Your task to perform on an android device: Open Youtube and go to the subscriptions tab Image 0: 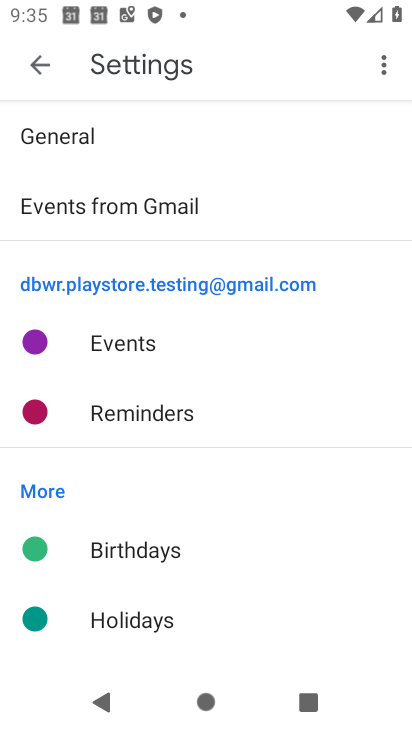
Step 0: press home button
Your task to perform on an android device: Open Youtube and go to the subscriptions tab Image 1: 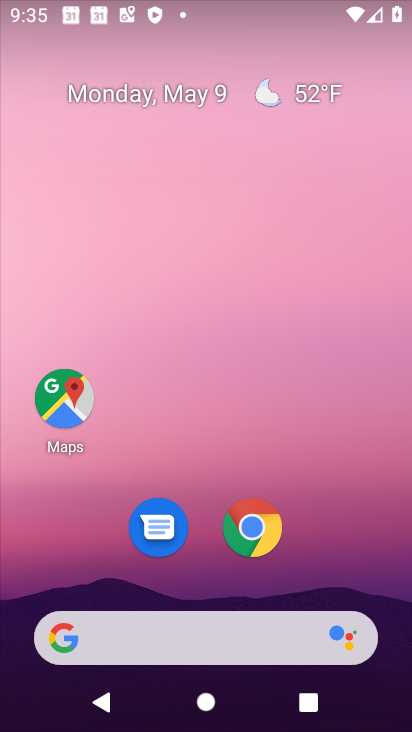
Step 1: drag from (190, 582) to (189, 86)
Your task to perform on an android device: Open Youtube and go to the subscriptions tab Image 2: 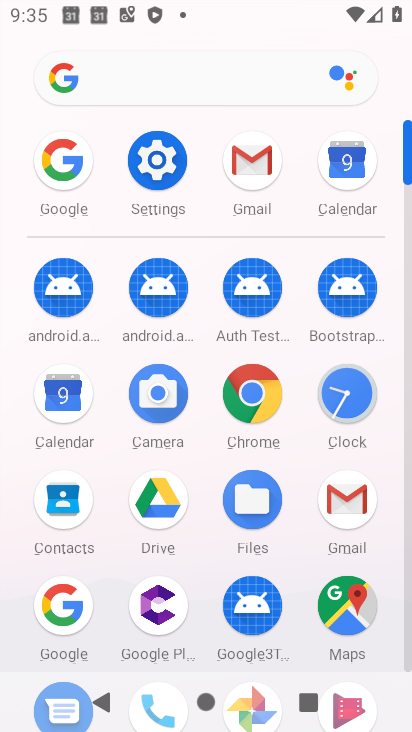
Step 2: drag from (202, 576) to (188, 64)
Your task to perform on an android device: Open Youtube and go to the subscriptions tab Image 3: 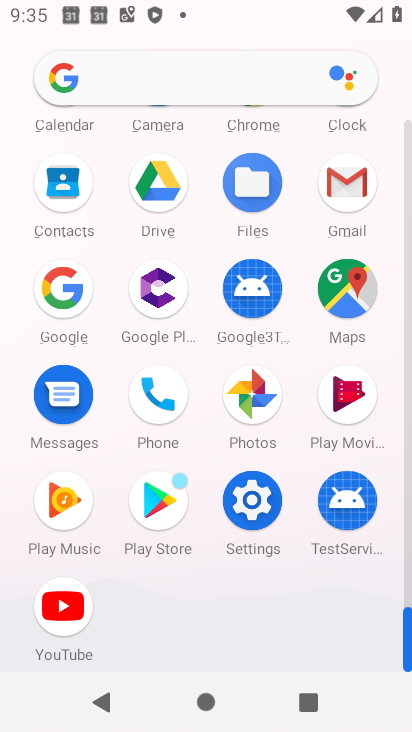
Step 3: click (59, 615)
Your task to perform on an android device: Open Youtube and go to the subscriptions tab Image 4: 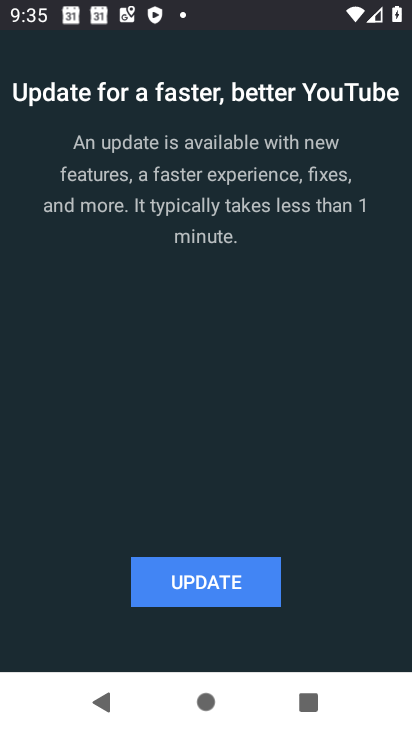
Step 4: click (208, 589)
Your task to perform on an android device: Open Youtube and go to the subscriptions tab Image 5: 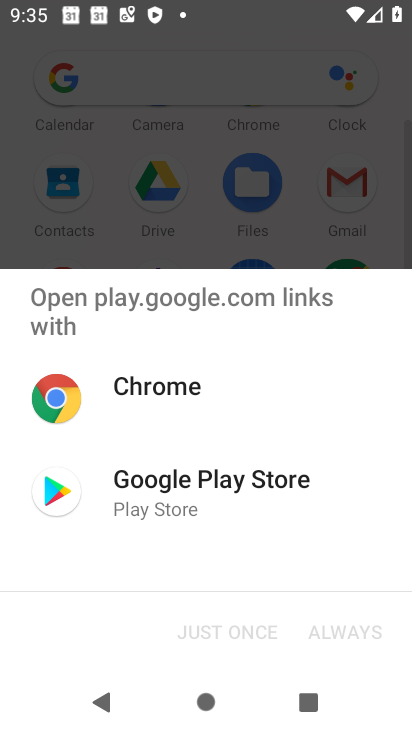
Step 5: click (143, 481)
Your task to perform on an android device: Open Youtube and go to the subscriptions tab Image 6: 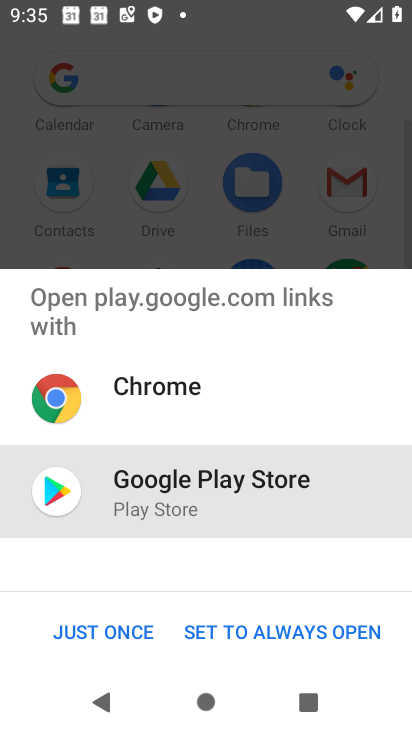
Step 6: click (141, 623)
Your task to perform on an android device: Open Youtube and go to the subscriptions tab Image 7: 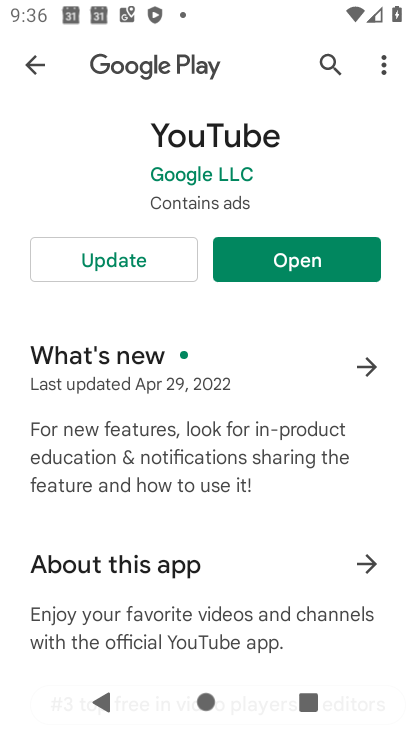
Step 7: click (145, 263)
Your task to perform on an android device: Open Youtube and go to the subscriptions tab Image 8: 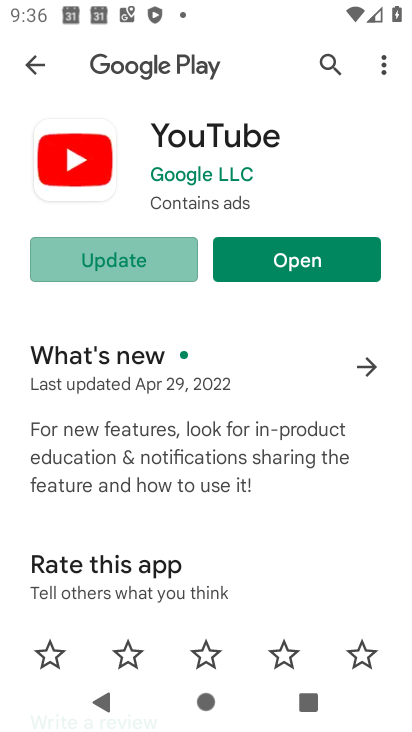
Step 8: click (145, 263)
Your task to perform on an android device: Open Youtube and go to the subscriptions tab Image 9: 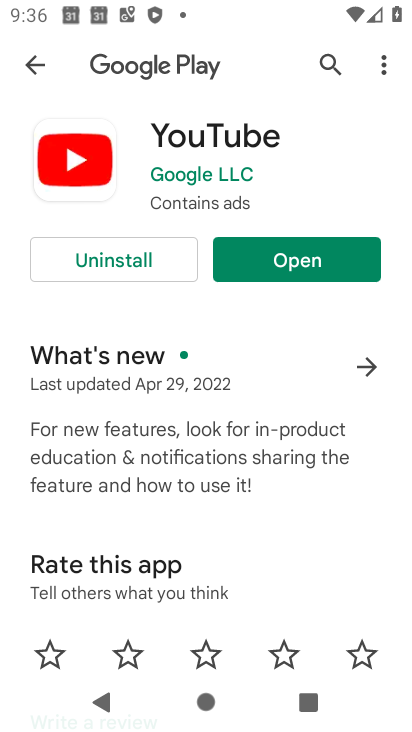
Step 9: click (268, 257)
Your task to perform on an android device: Open Youtube and go to the subscriptions tab Image 10: 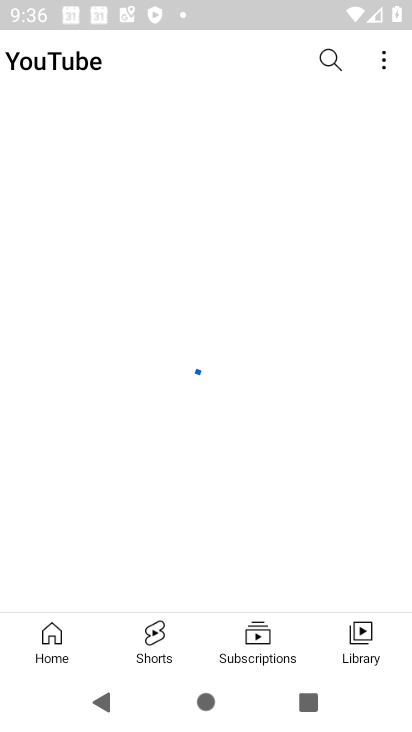
Step 10: click (265, 648)
Your task to perform on an android device: Open Youtube and go to the subscriptions tab Image 11: 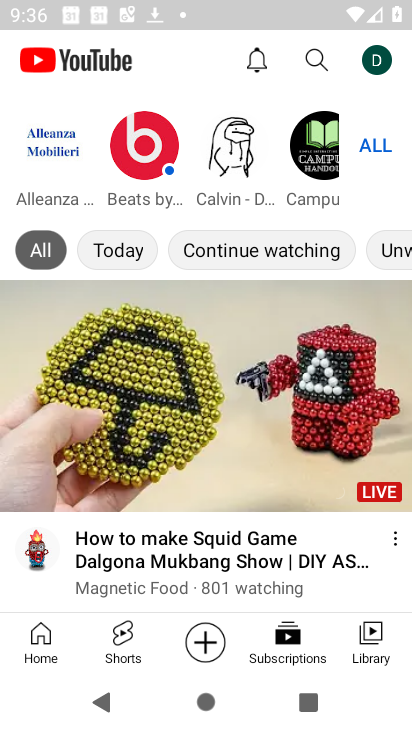
Step 11: task complete